Your task to perform on an android device: turn off notifications in google photos Image 0: 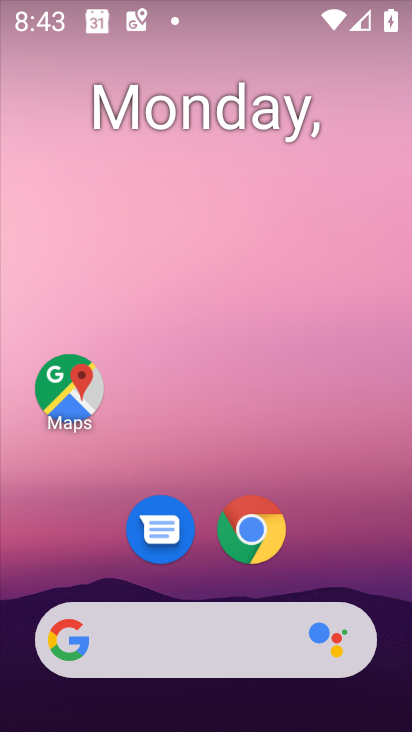
Step 0: drag from (63, 608) to (281, 222)
Your task to perform on an android device: turn off notifications in google photos Image 1: 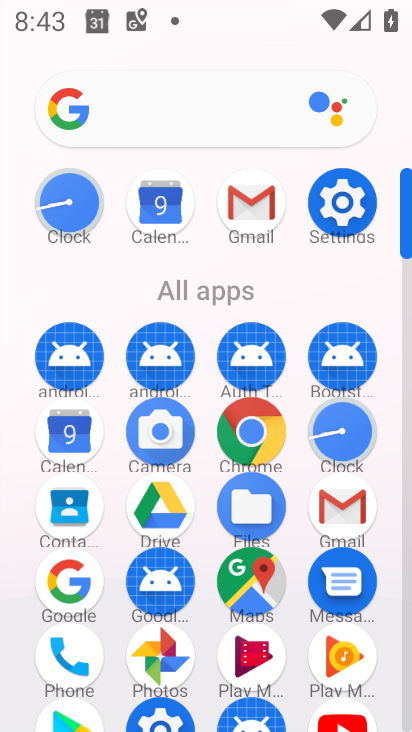
Step 1: click (174, 667)
Your task to perform on an android device: turn off notifications in google photos Image 2: 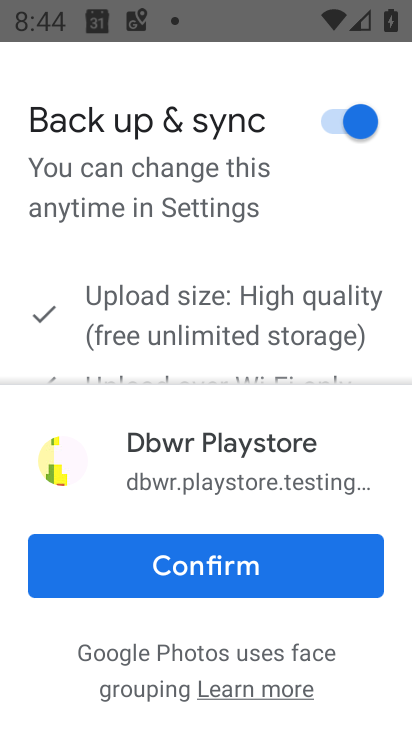
Step 2: click (180, 567)
Your task to perform on an android device: turn off notifications in google photos Image 3: 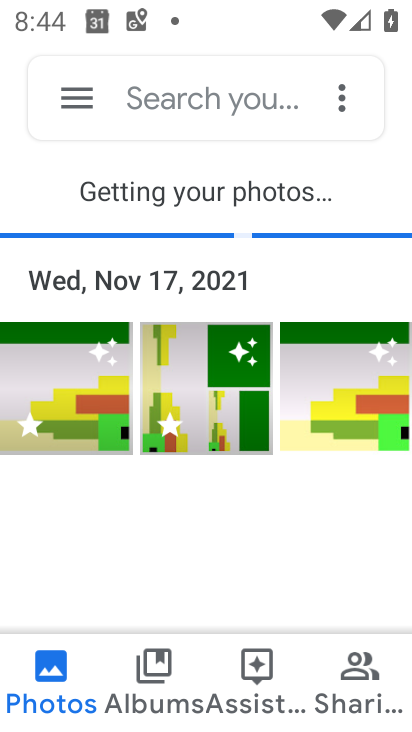
Step 3: click (339, 105)
Your task to perform on an android device: turn off notifications in google photos Image 4: 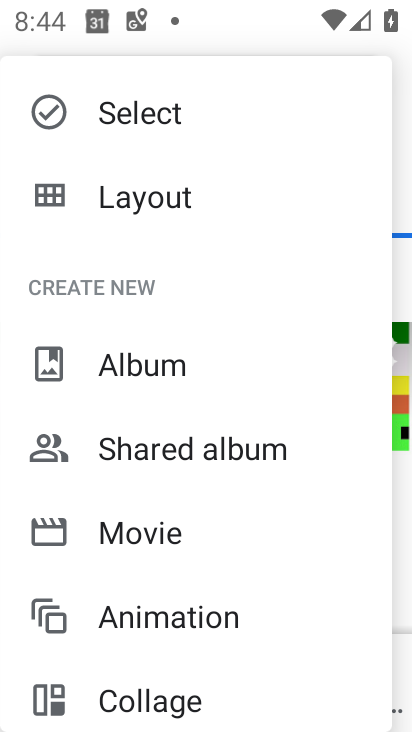
Step 4: press back button
Your task to perform on an android device: turn off notifications in google photos Image 5: 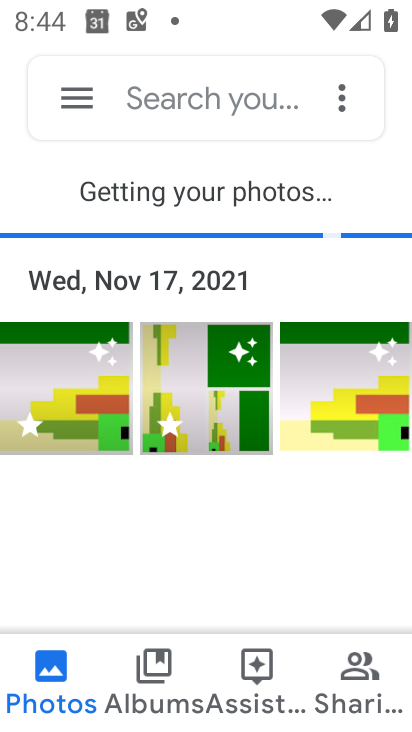
Step 5: click (65, 95)
Your task to perform on an android device: turn off notifications in google photos Image 6: 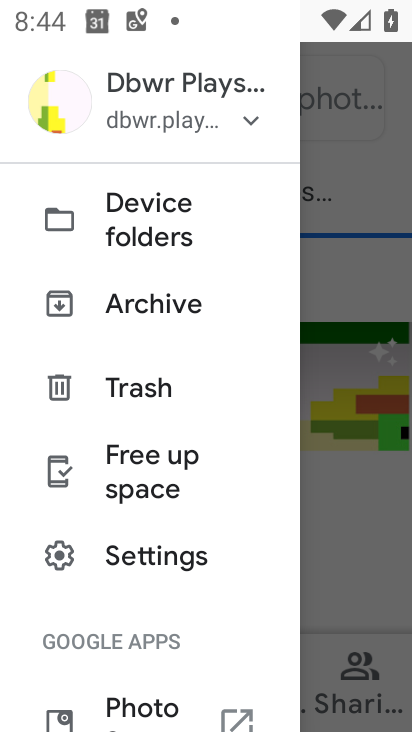
Step 6: click (128, 552)
Your task to perform on an android device: turn off notifications in google photos Image 7: 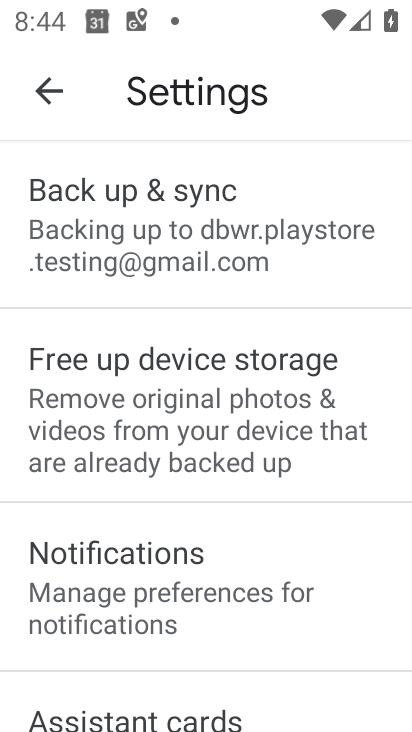
Step 7: click (125, 575)
Your task to perform on an android device: turn off notifications in google photos Image 8: 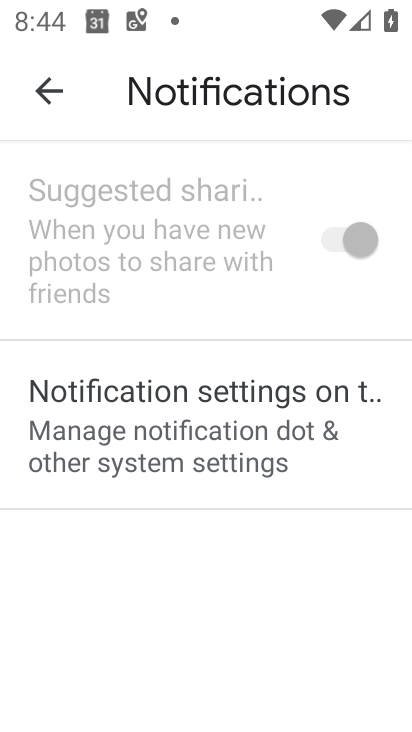
Step 8: click (368, 247)
Your task to perform on an android device: turn off notifications in google photos Image 9: 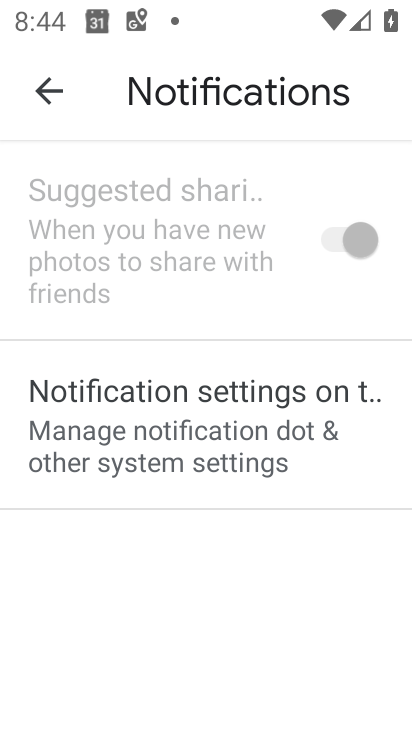
Step 9: drag from (368, 247) to (304, 259)
Your task to perform on an android device: turn off notifications in google photos Image 10: 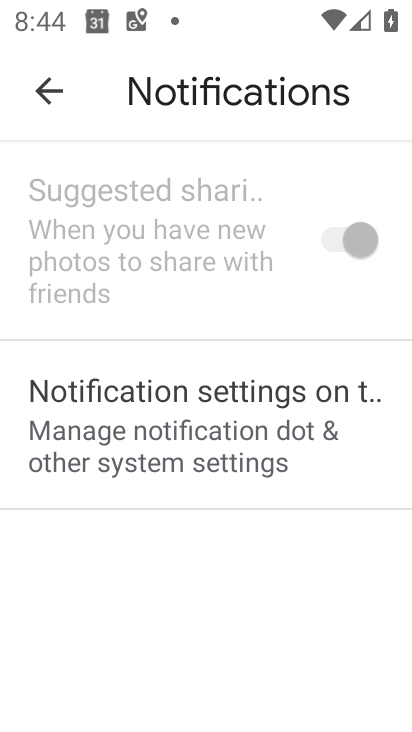
Step 10: click (220, 454)
Your task to perform on an android device: turn off notifications in google photos Image 11: 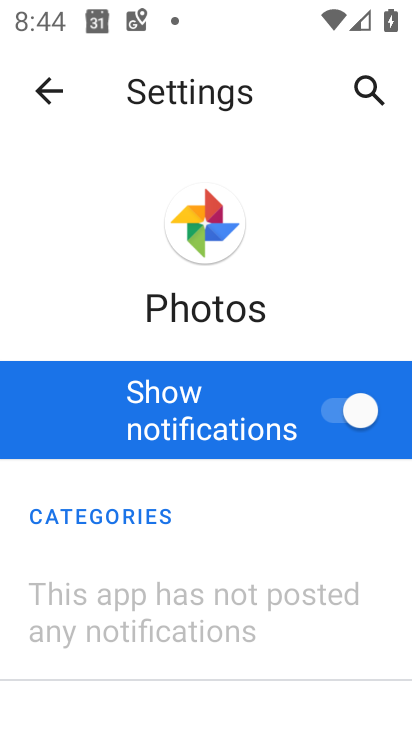
Step 11: click (364, 407)
Your task to perform on an android device: turn off notifications in google photos Image 12: 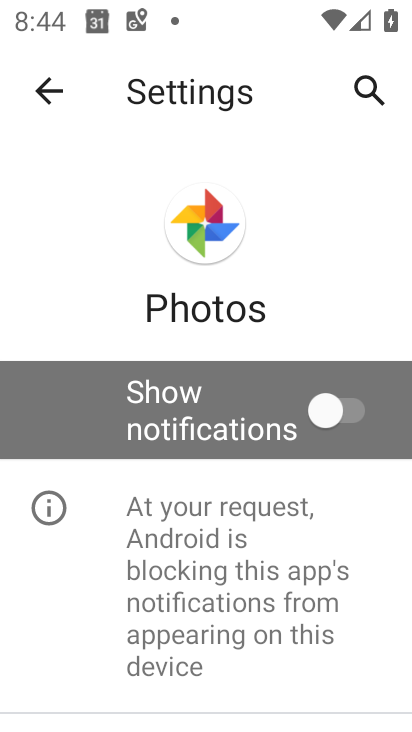
Step 12: task complete